Your task to perform on an android device: add a contact in the contacts app Image 0: 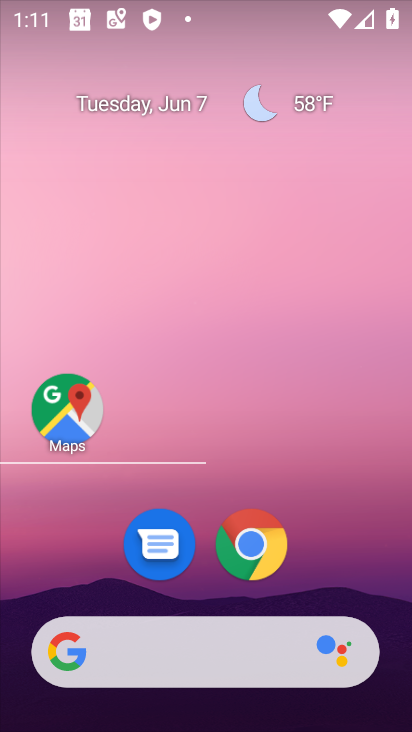
Step 0: drag from (323, 2) to (230, 4)
Your task to perform on an android device: add a contact in the contacts app Image 1: 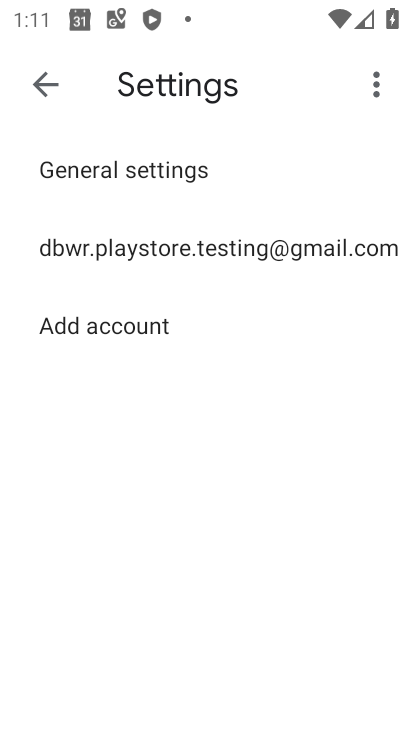
Step 1: press home button
Your task to perform on an android device: add a contact in the contacts app Image 2: 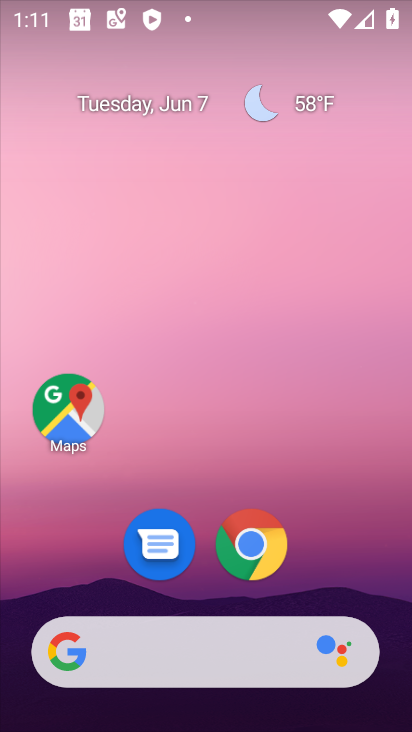
Step 2: drag from (208, 628) to (250, 7)
Your task to perform on an android device: add a contact in the contacts app Image 3: 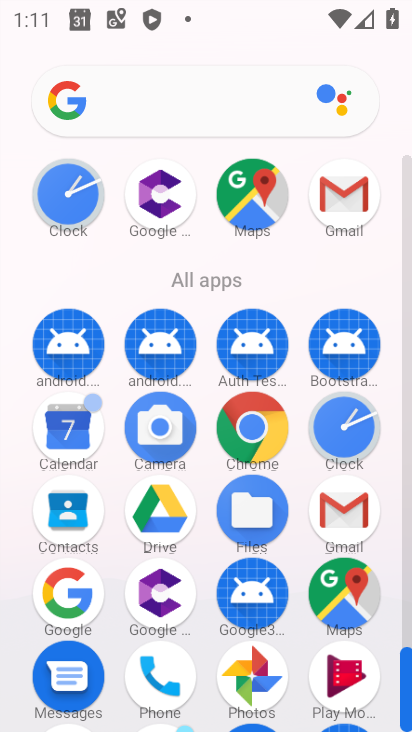
Step 3: click (65, 512)
Your task to perform on an android device: add a contact in the contacts app Image 4: 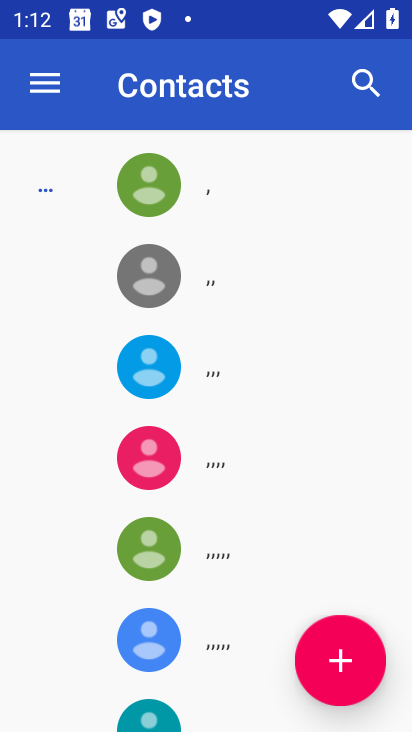
Step 4: click (341, 652)
Your task to perform on an android device: add a contact in the contacts app Image 5: 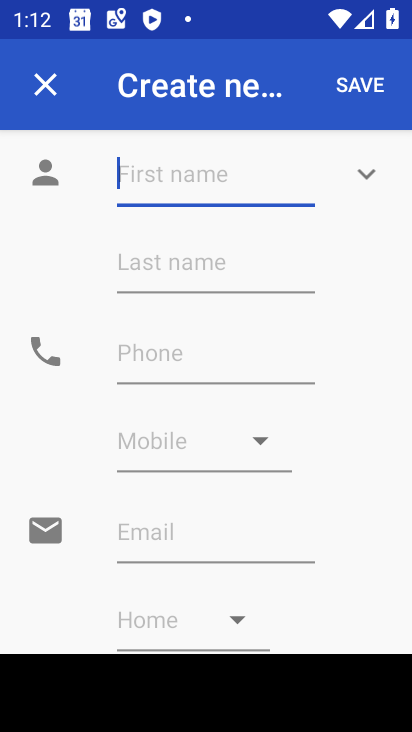
Step 5: type "nceeoij"
Your task to perform on an android device: add a contact in the contacts app Image 6: 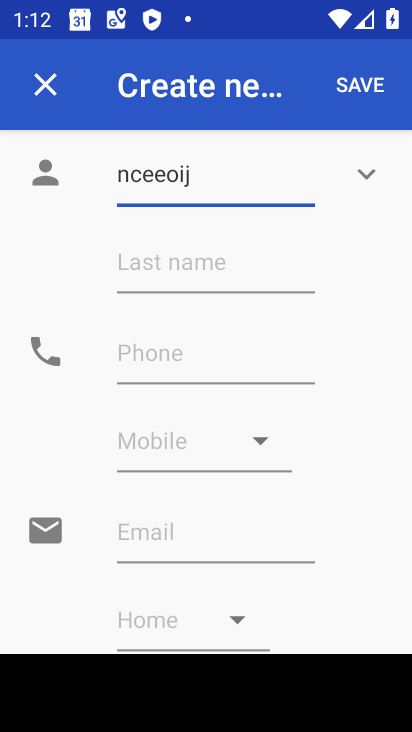
Step 6: click (152, 355)
Your task to perform on an android device: add a contact in the contacts app Image 7: 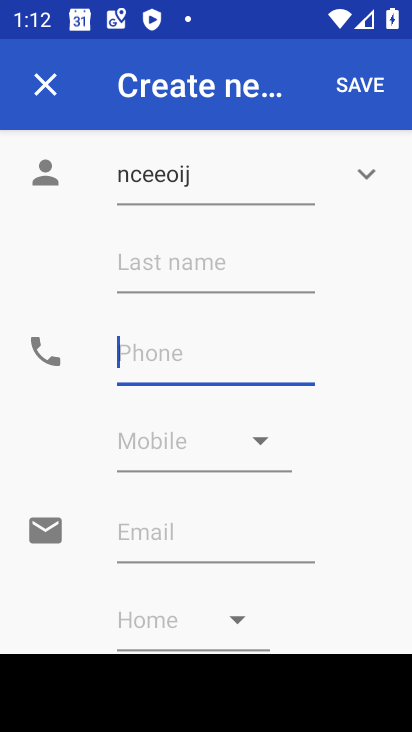
Step 7: type "8239723"
Your task to perform on an android device: add a contact in the contacts app Image 8: 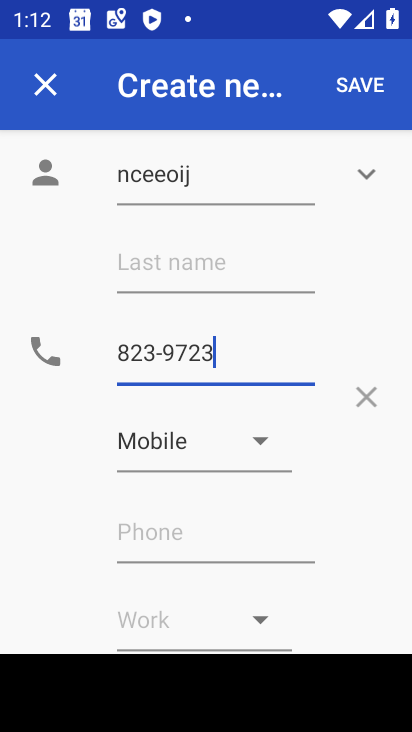
Step 8: click (344, 73)
Your task to perform on an android device: add a contact in the contacts app Image 9: 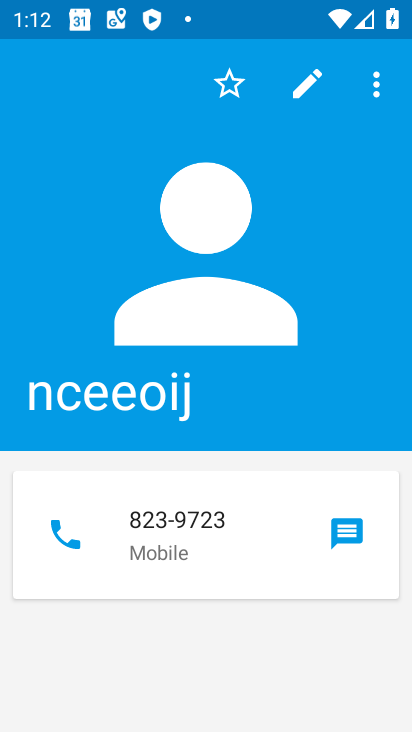
Step 9: task complete